Your task to perform on an android device: open app "Skype" (install if not already installed) Image 0: 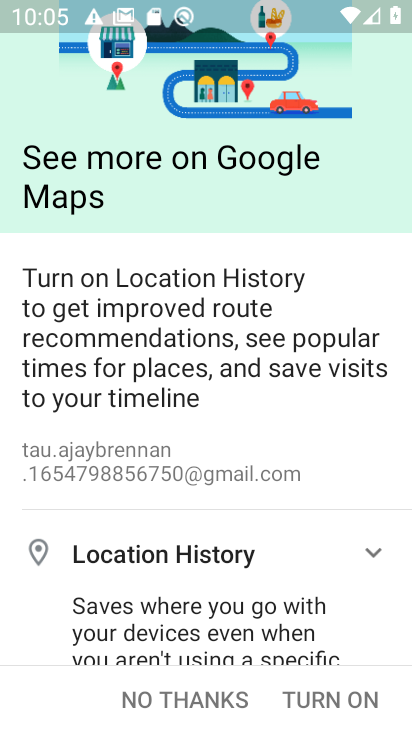
Step 0: press home button
Your task to perform on an android device: open app "Skype" (install if not already installed) Image 1: 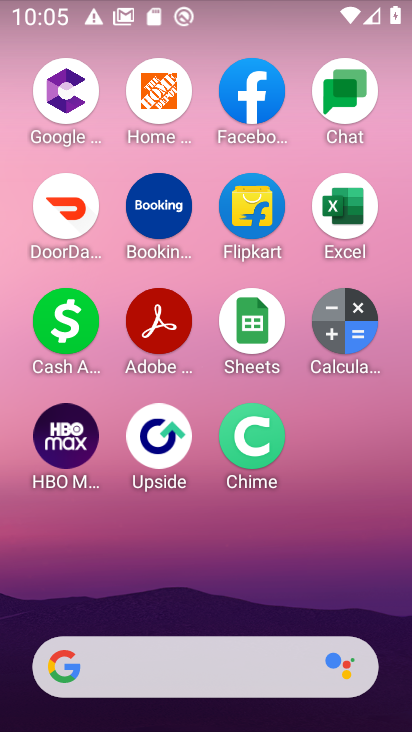
Step 1: drag from (216, 606) to (178, 21)
Your task to perform on an android device: open app "Skype" (install if not already installed) Image 2: 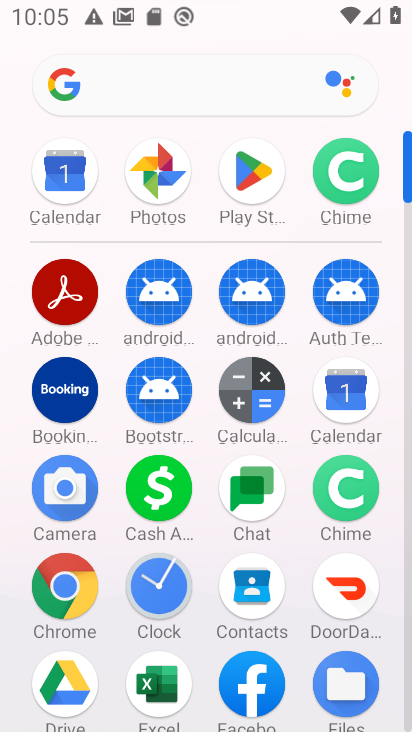
Step 2: click (242, 179)
Your task to perform on an android device: open app "Skype" (install if not already installed) Image 3: 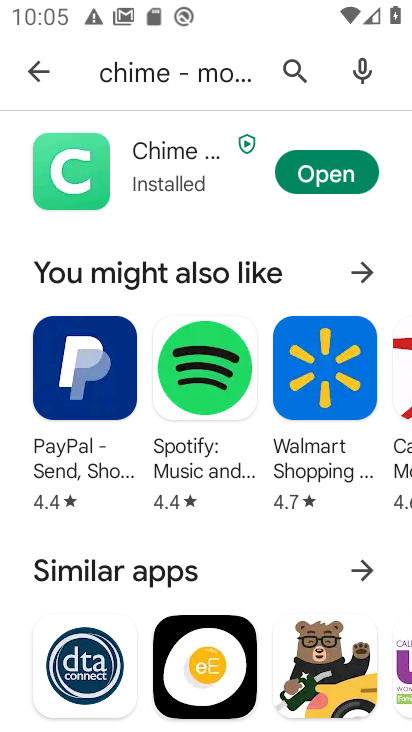
Step 3: click (300, 62)
Your task to perform on an android device: open app "Skype" (install if not already installed) Image 4: 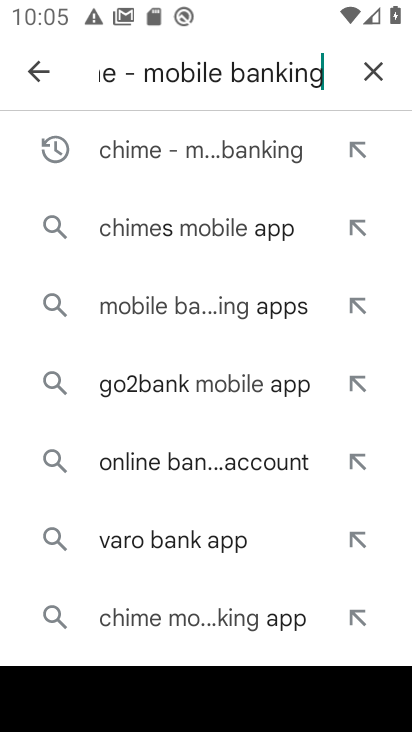
Step 4: click (370, 65)
Your task to perform on an android device: open app "Skype" (install if not already installed) Image 5: 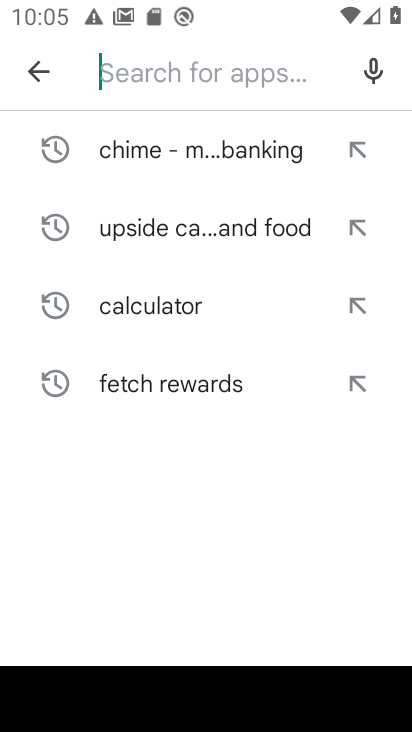
Step 5: type "skype"
Your task to perform on an android device: open app "Skype" (install if not already installed) Image 6: 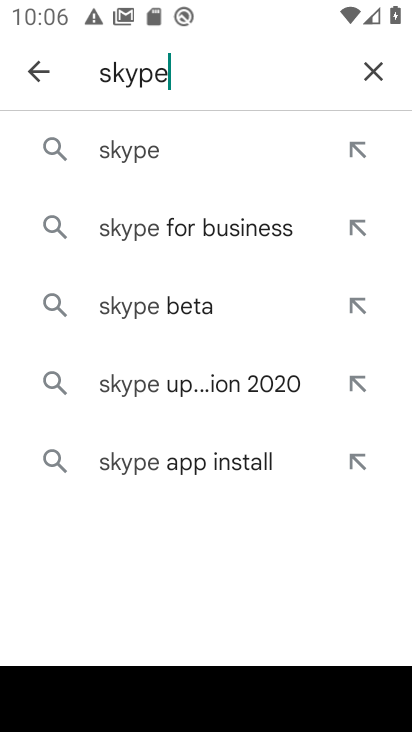
Step 6: click (108, 148)
Your task to perform on an android device: open app "Skype" (install if not already installed) Image 7: 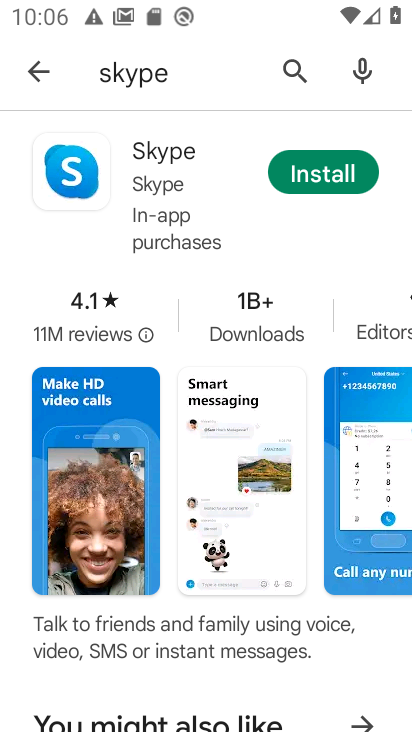
Step 7: click (334, 162)
Your task to perform on an android device: open app "Skype" (install if not already installed) Image 8: 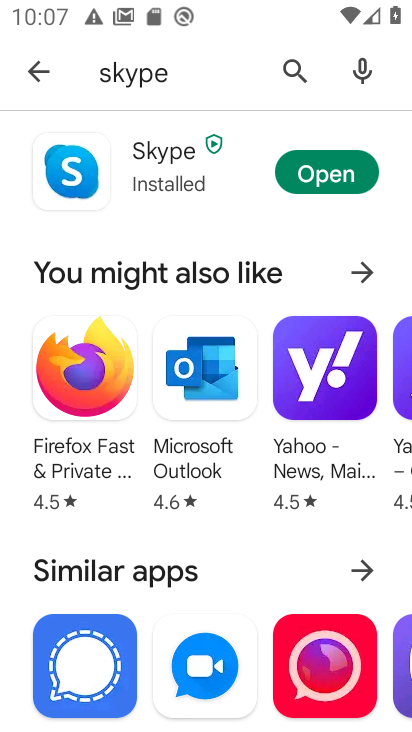
Step 8: click (336, 171)
Your task to perform on an android device: open app "Skype" (install if not already installed) Image 9: 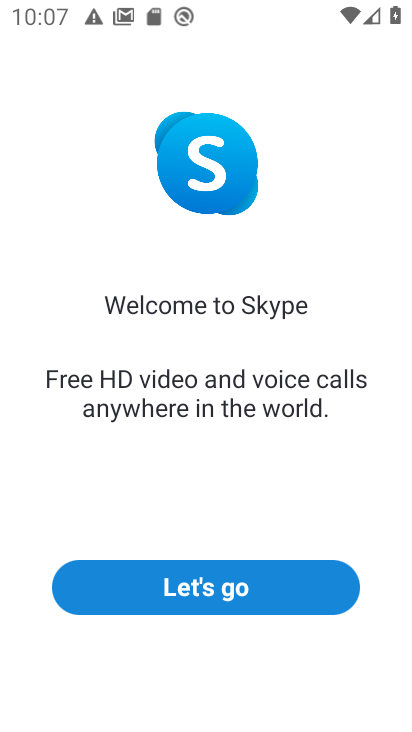
Step 9: task complete